Your task to perform on an android device: Open privacy settings Image 0: 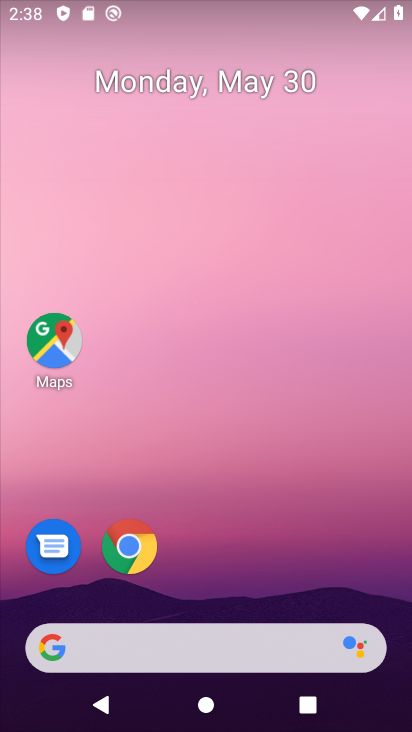
Step 0: drag from (302, 588) to (274, 22)
Your task to perform on an android device: Open privacy settings Image 1: 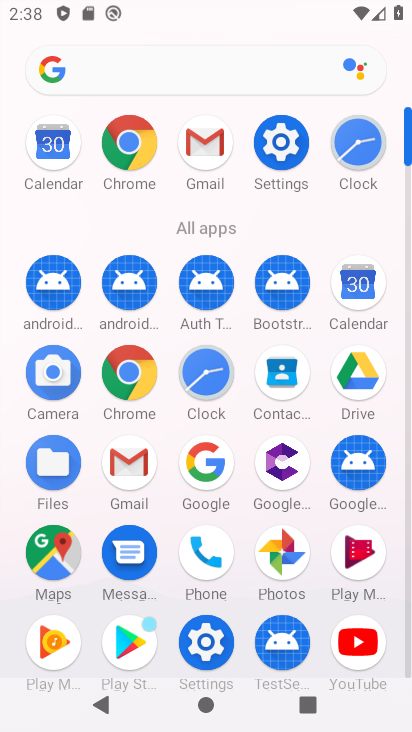
Step 1: click (287, 138)
Your task to perform on an android device: Open privacy settings Image 2: 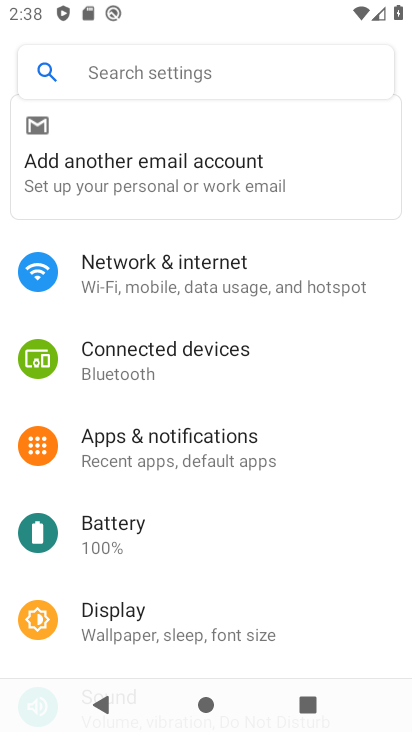
Step 2: drag from (165, 476) to (123, 4)
Your task to perform on an android device: Open privacy settings Image 3: 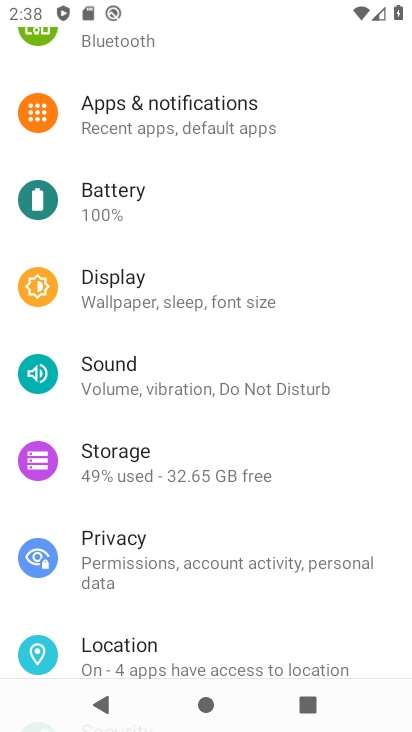
Step 3: drag from (198, 576) to (161, 235)
Your task to perform on an android device: Open privacy settings Image 4: 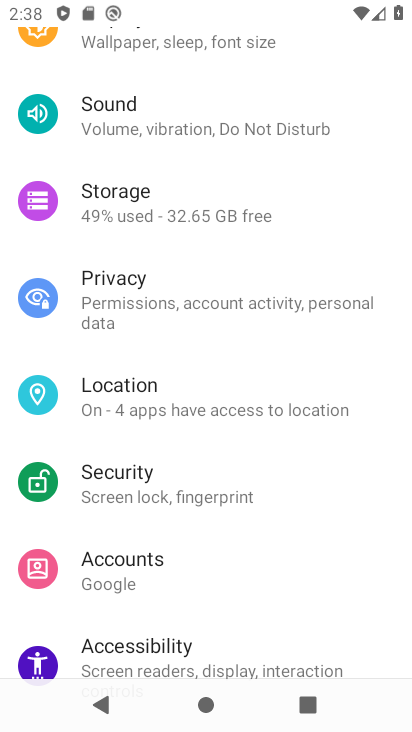
Step 4: click (125, 309)
Your task to perform on an android device: Open privacy settings Image 5: 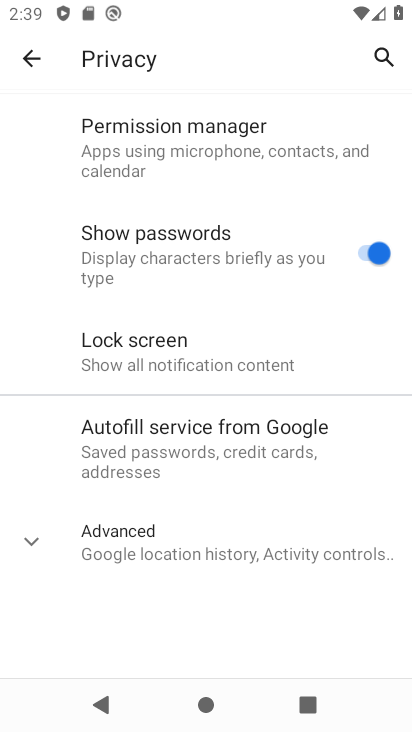
Step 5: task complete